Your task to perform on an android device: What's the weather today? Image 0: 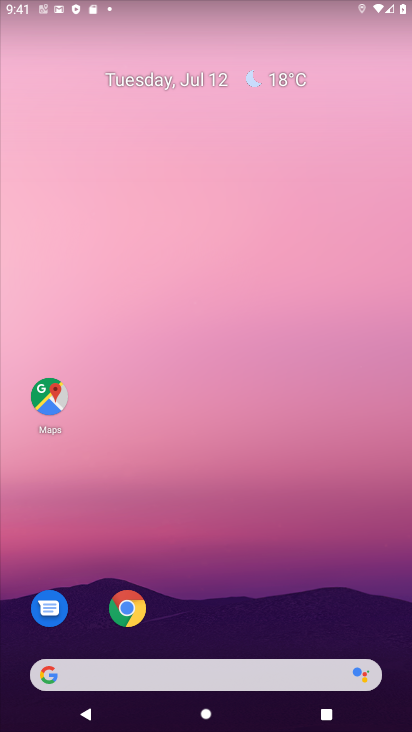
Step 0: click (211, 673)
Your task to perform on an android device: What's the weather today? Image 1: 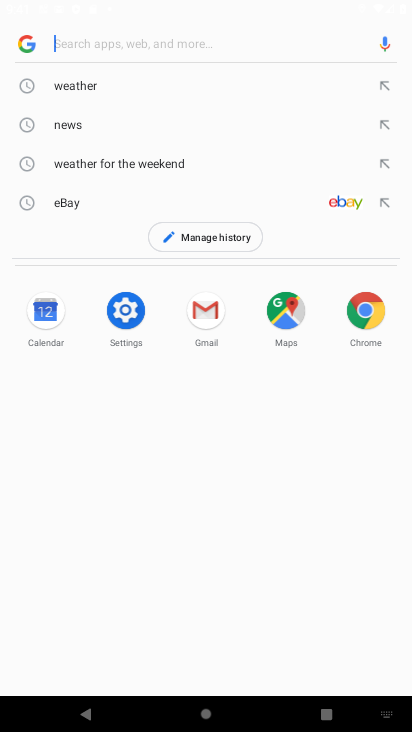
Step 1: click (80, 84)
Your task to perform on an android device: What's the weather today? Image 2: 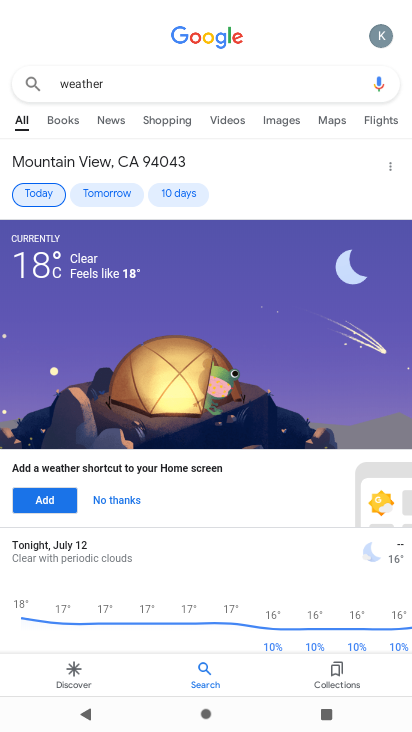
Step 2: task complete